Your task to perform on an android device: Go to notification settings Image 0: 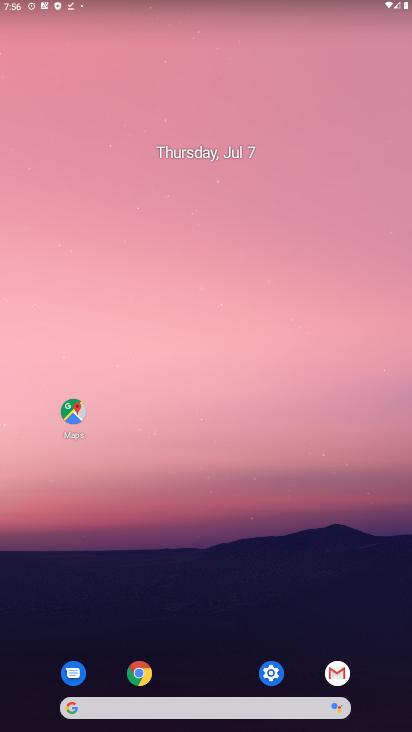
Step 0: click (261, 669)
Your task to perform on an android device: Go to notification settings Image 1: 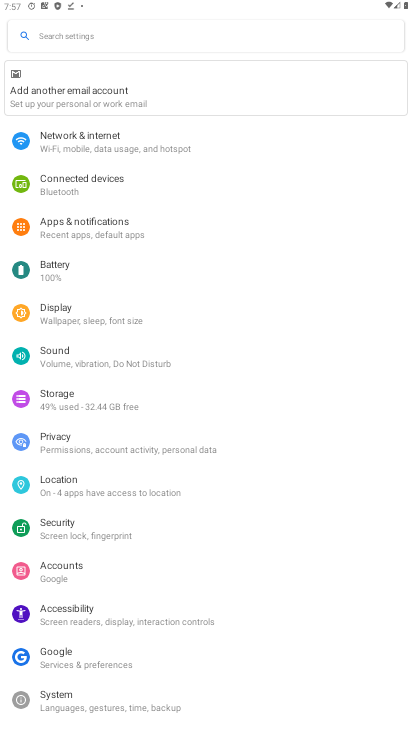
Step 1: click (123, 30)
Your task to perform on an android device: Go to notification settings Image 2: 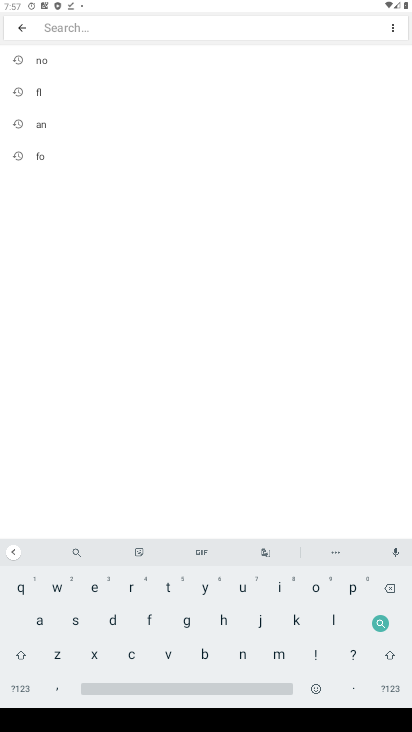
Step 2: click (243, 662)
Your task to perform on an android device: Go to notification settings Image 3: 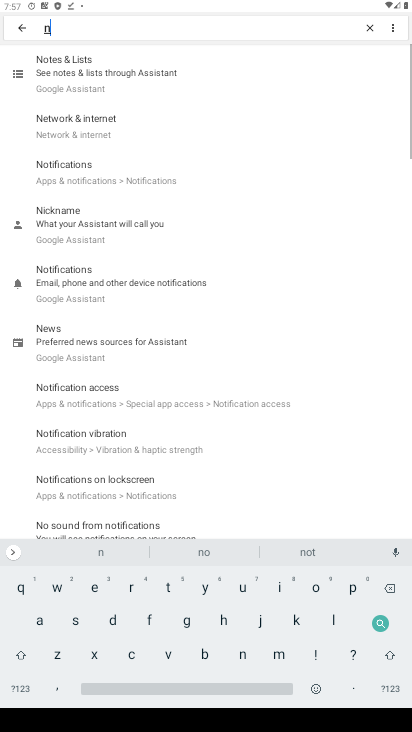
Step 3: click (319, 587)
Your task to perform on an android device: Go to notification settings Image 4: 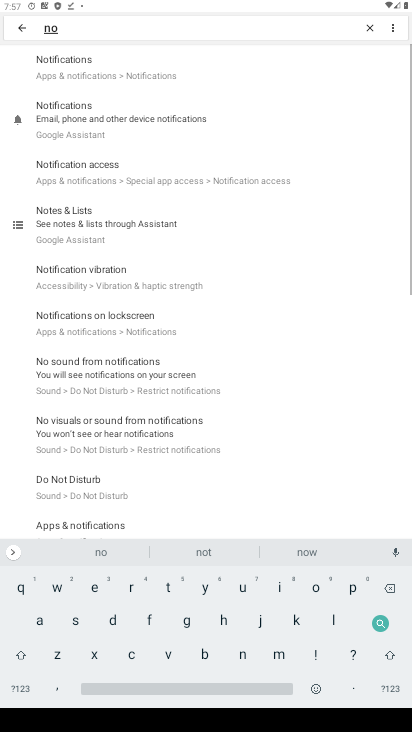
Step 4: click (115, 64)
Your task to perform on an android device: Go to notification settings Image 5: 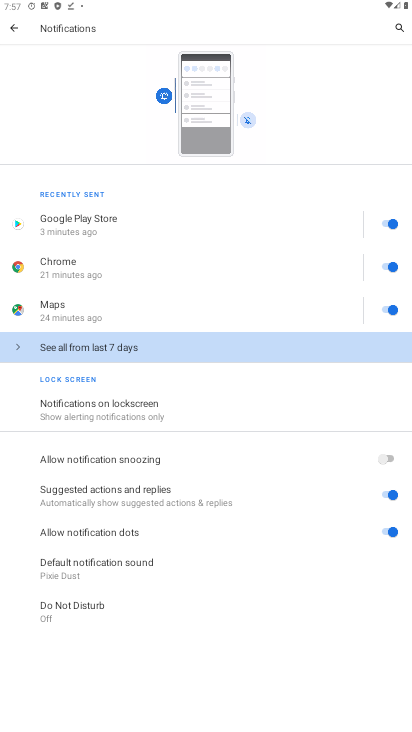
Step 5: click (100, 403)
Your task to perform on an android device: Go to notification settings Image 6: 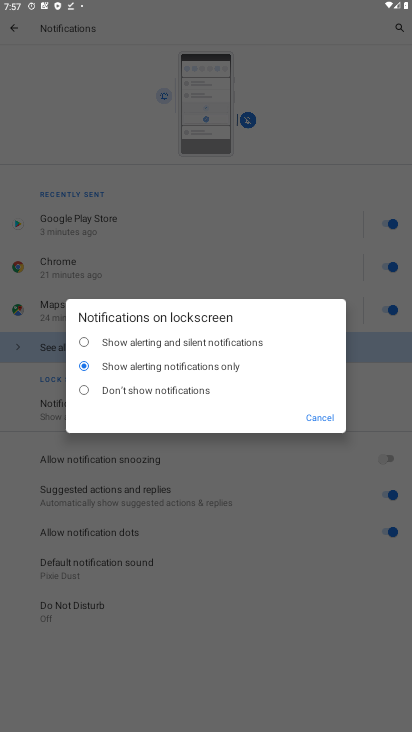
Step 6: task complete